Your task to perform on an android device: Search for Italian restaurants on Maps Image 0: 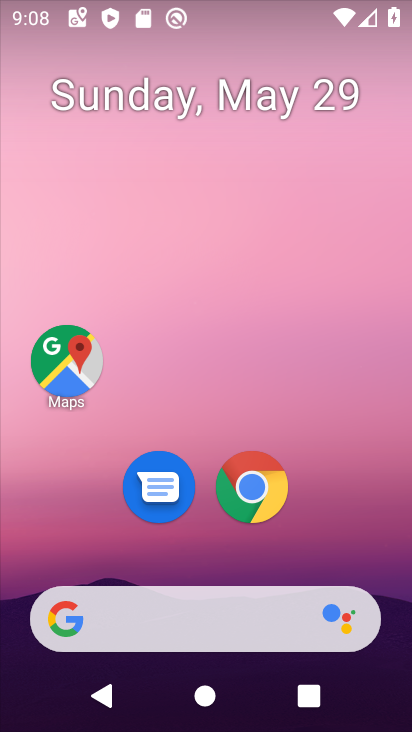
Step 0: click (70, 346)
Your task to perform on an android device: Search for Italian restaurants on Maps Image 1: 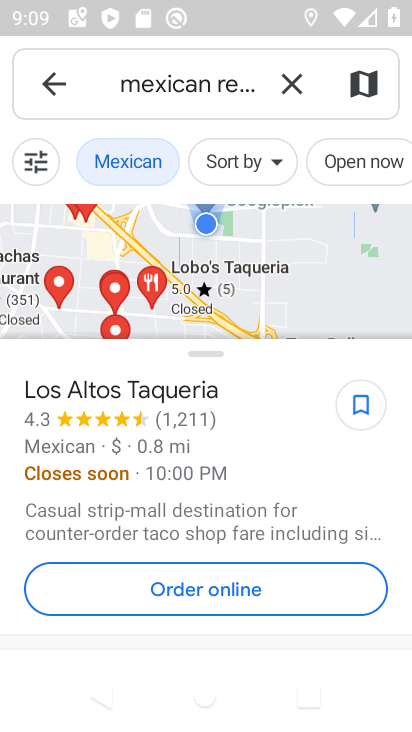
Step 1: click (288, 104)
Your task to perform on an android device: Search for Italian restaurants on Maps Image 2: 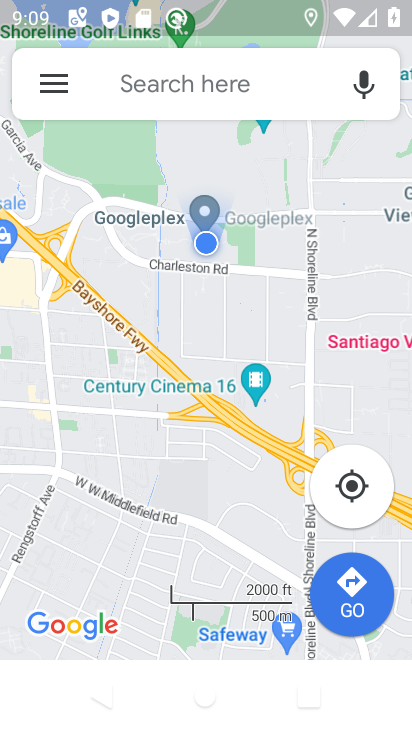
Step 2: click (166, 77)
Your task to perform on an android device: Search for Italian restaurants on Maps Image 3: 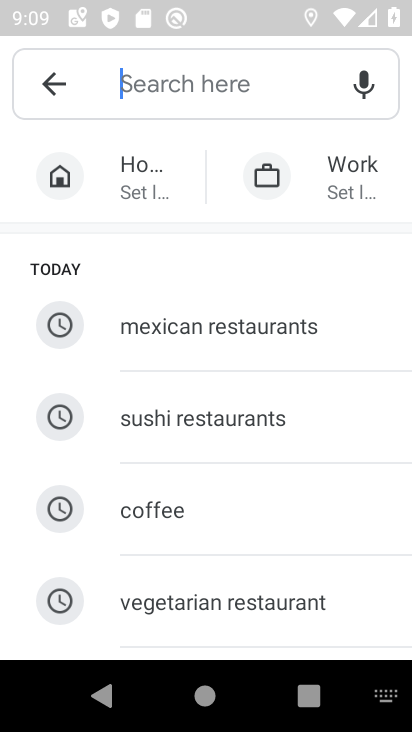
Step 3: type "Italian restaurants"
Your task to perform on an android device: Search for Italian restaurants on Maps Image 4: 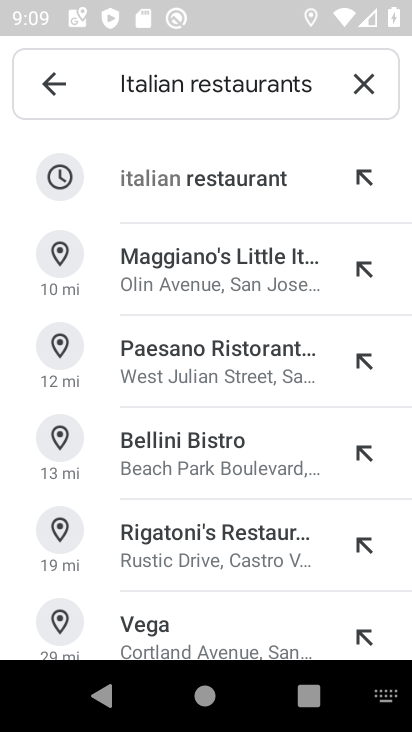
Step 4: click (241, 180)
Your task to perform on an android device: Search for Italian restaurants on Maps Image 5: 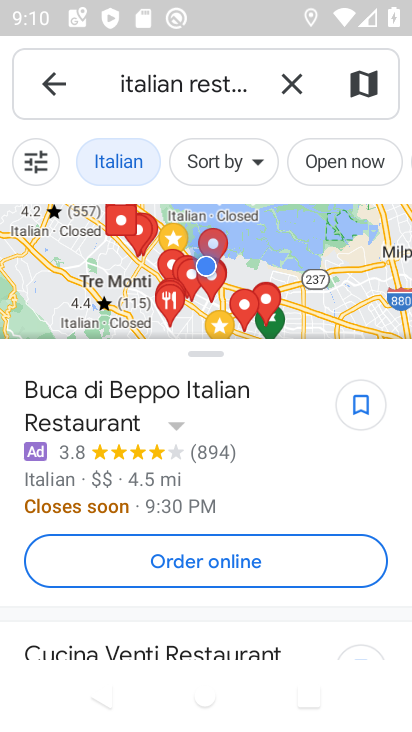
Step 5: task complete